Your task to perform on an android device: stop showing notifications on the lock screen Image 0: 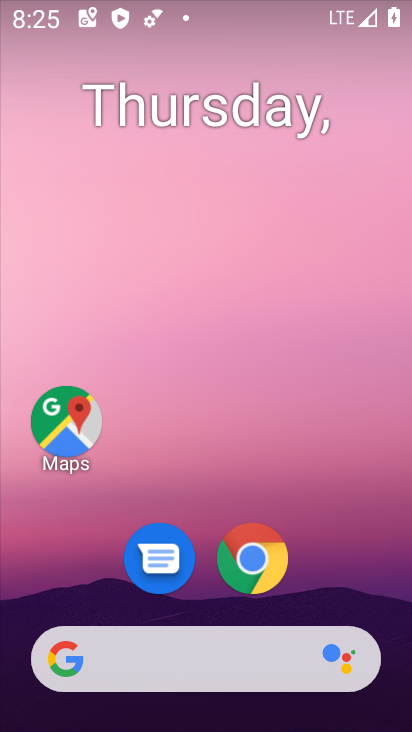
Step 0: drag from (225, 627) to (298, 172)
Your task to perform on an android device: stop showing notifications on the lock screen Image 1: 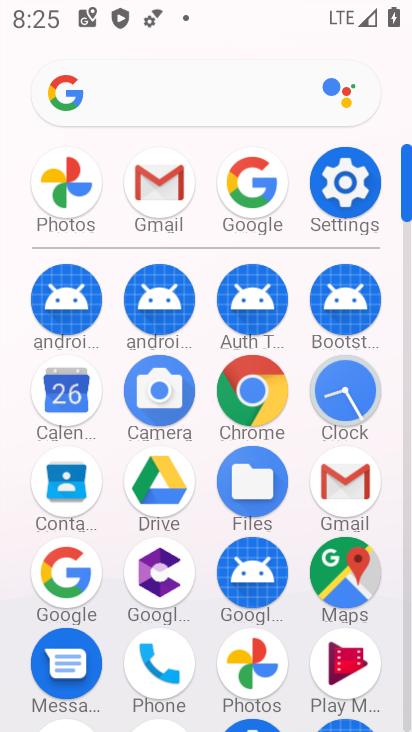
Step 1: click (341, 184)
Your task to perform on an android device: stop showing notifications on the lock screen Image 2: 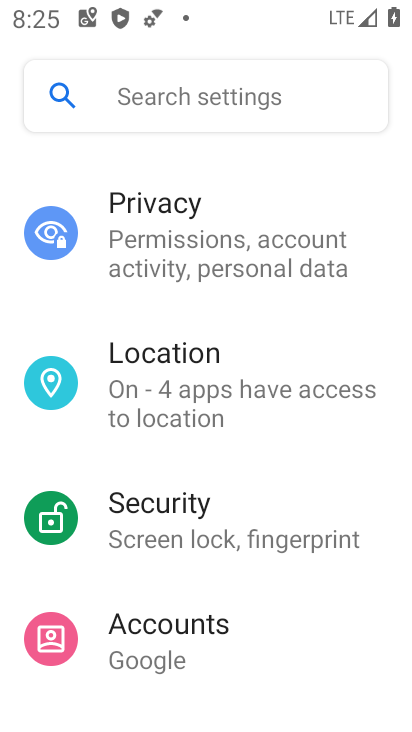
Step 2: click (243, 244)
Your task to perform on an android device: stop showing notifications on the lock screen Image 3: 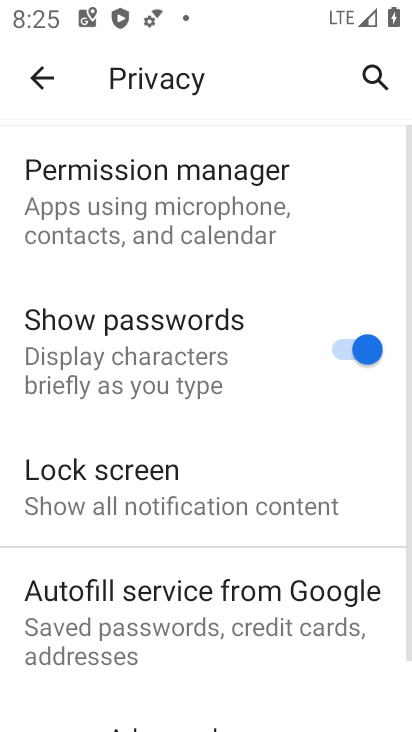
Step 3: click (151, 485)
Your task to perform on an android device: stop showing notifications on the lock screen Image 4: 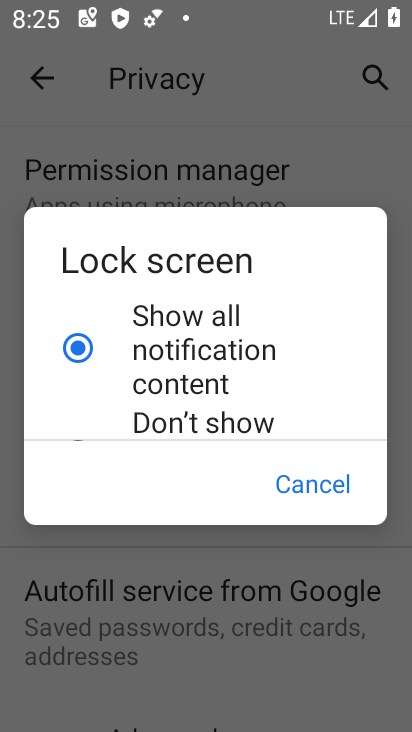
Step 4: click (181, 423)
Your task to perform on an android device: stop showing notifications on the lock screen Image 5: 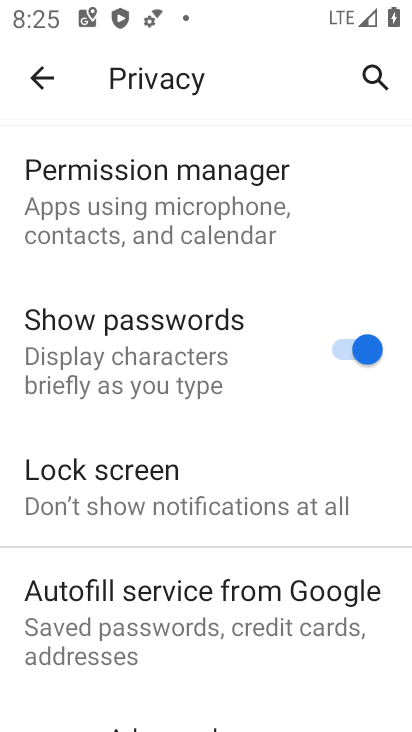
Step 5: task complete